Your task to perform on an android device: Go to Google maps Image 0: 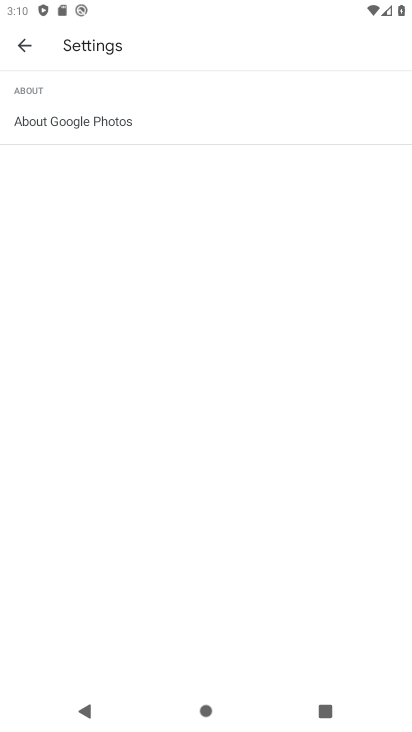
Step 0: press home button
Your task to perform on an android device: Go to Google maps Image 1: 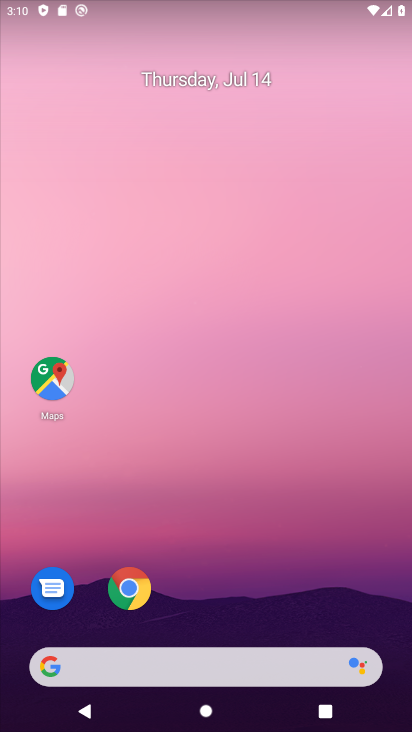
Step 1: click (51, 380)
Your task to perform on an android device: Go to Google maps Image 2: 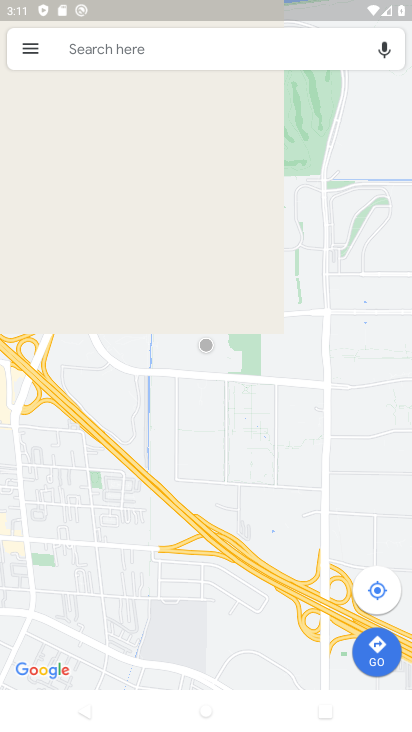
Step 2: task complete